Your task to perform on an android device: Do I have any events this weekend? Image 0: 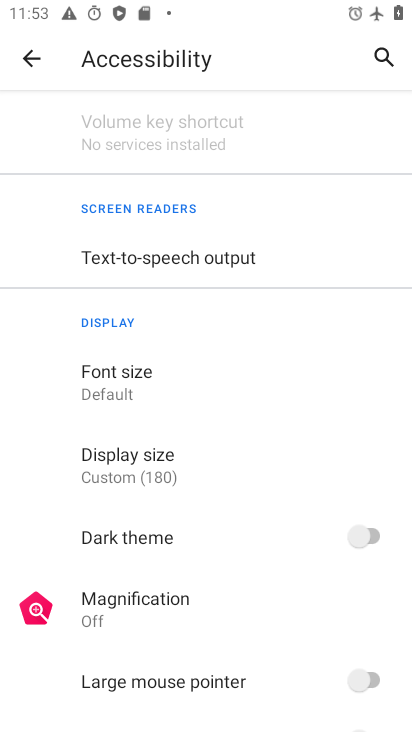
Step 0: press home button
Your task to perform on an android device: Do I have any events this weekend? Image 1: 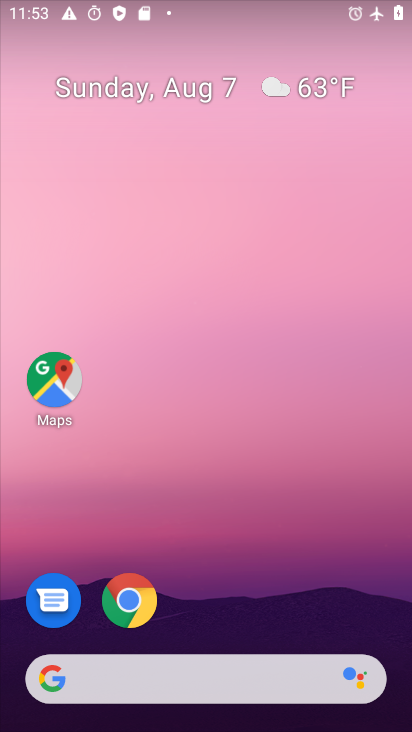
Step 1: drag from (163, 568) to (167, 163)
Your task to perform on an android device: Do I have any events this weekend? Image 2: 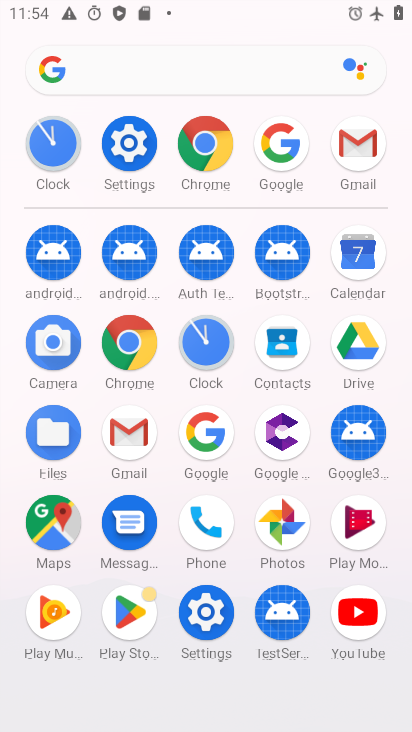
Step 2: click (369, 269)
Your task to perform on an android device: Do I have any events this weekend? Image 3: 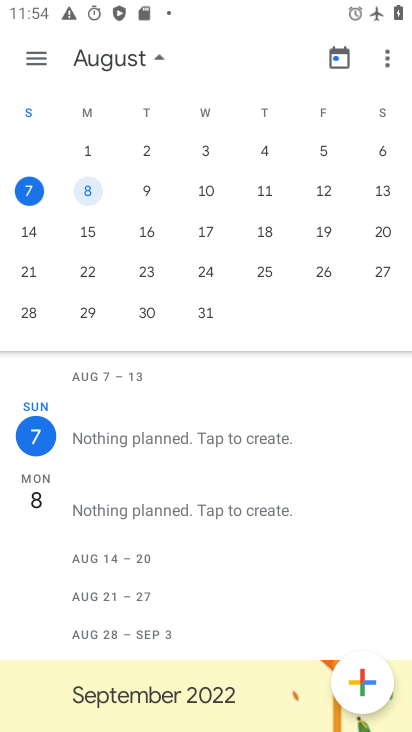
Step 3: click (219, 196)
Your task to perform on an android device: Do I have any events this weekend? Image 4: 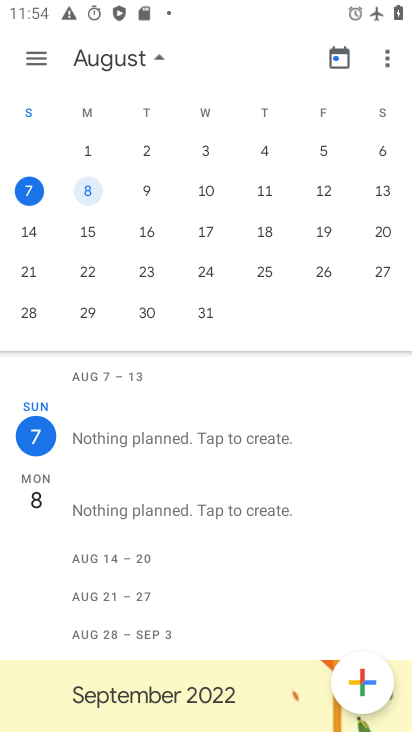
Step 4: click (372, 194)
Your task to perform on an android device: Do I have any events this weekend? Image 5: 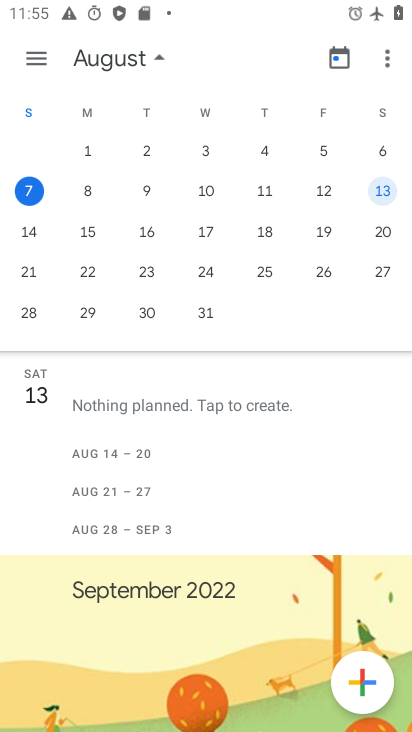
Step 5: task complete